Your task to perform on an android device: Go to Yahoo.com Image 0: 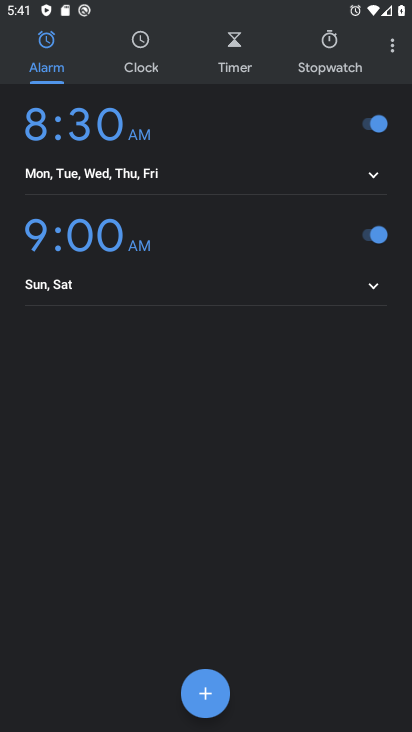
Step 0: press home button
Your task to perform on an android device: Go to Yahoo.com Image 1: 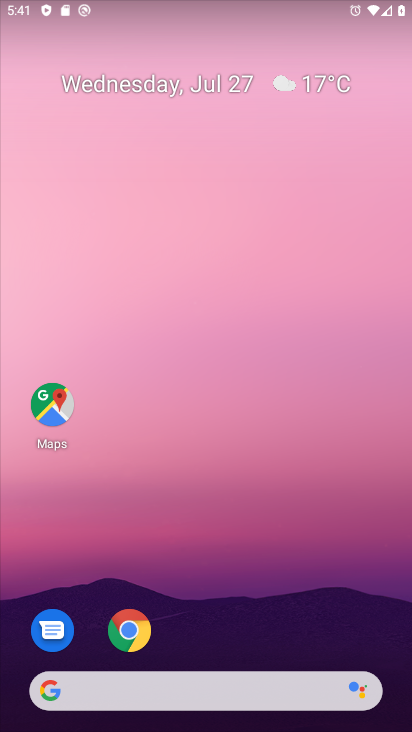
Step 1: click (126, 631)
Your task to perform on an android device: Go to Yahoo.com Image 2: 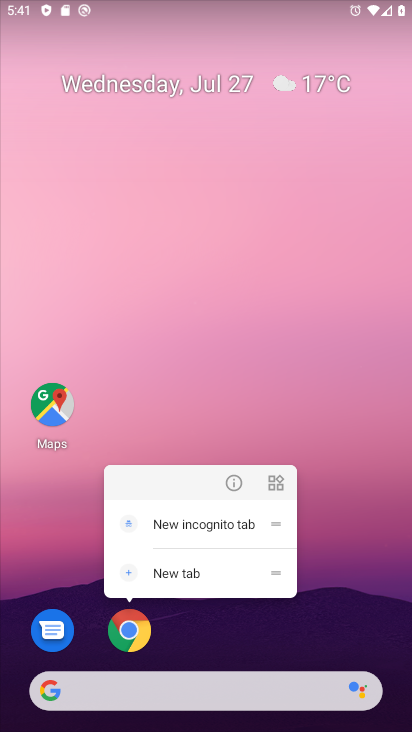
Step 2: click (126, 629)
Your task to perform on an android device: Go to Yahoo.com Image 3: 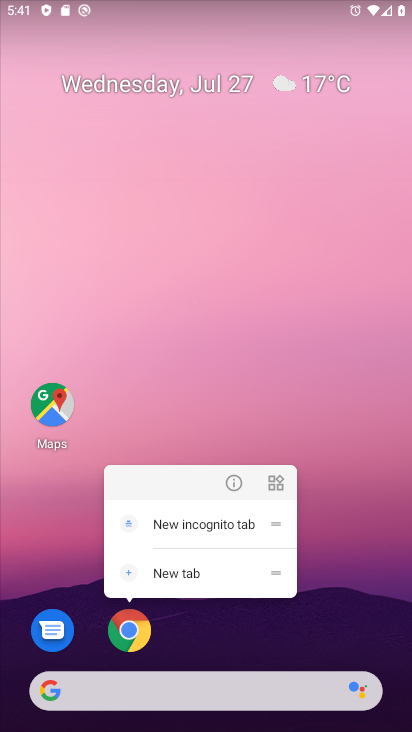
Step 3: click (126, 626)
Your task to perform on an android device: Go to Yahoo.com Image 4: 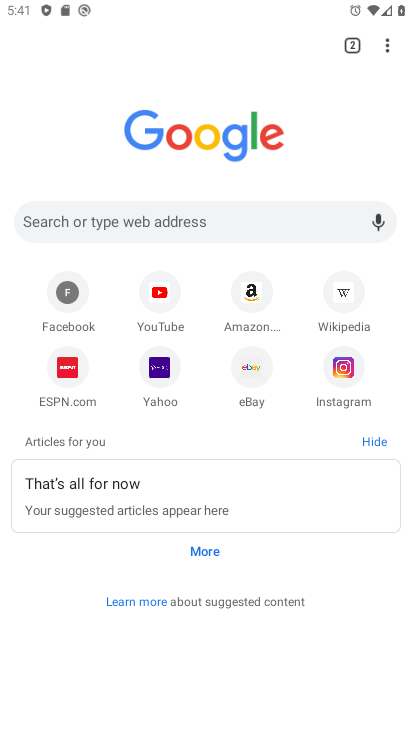
Step 4: click (161, 359)
Your task to perform on an android device: Go to Yahoo.com Image 5: 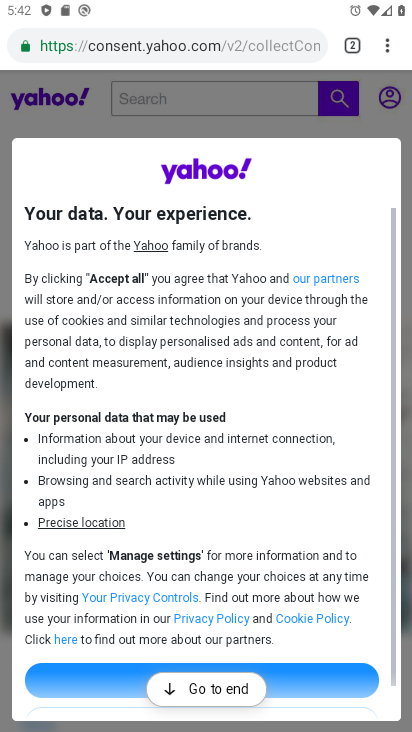
Step 5: click (218, 684)
Your task to perform on an android device: Go to Yahoo.com Image 6: 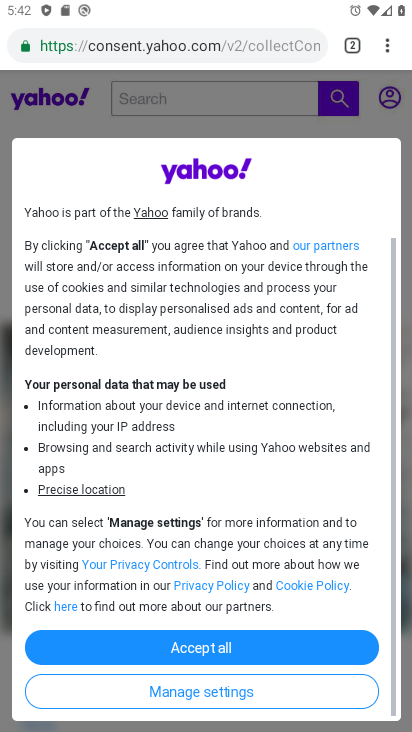
Step 6: click (200, 650)
Your task to perform on an android device: Go to Yahoo.com Image 7: 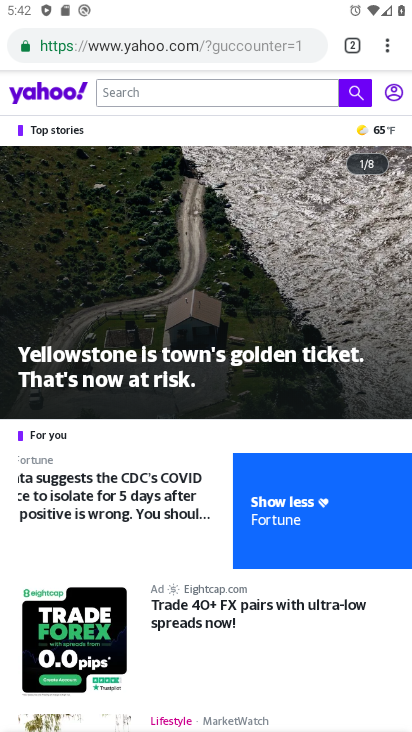
Step 7: task complete